Your task to perform on an android device: Open display settings Image 0: 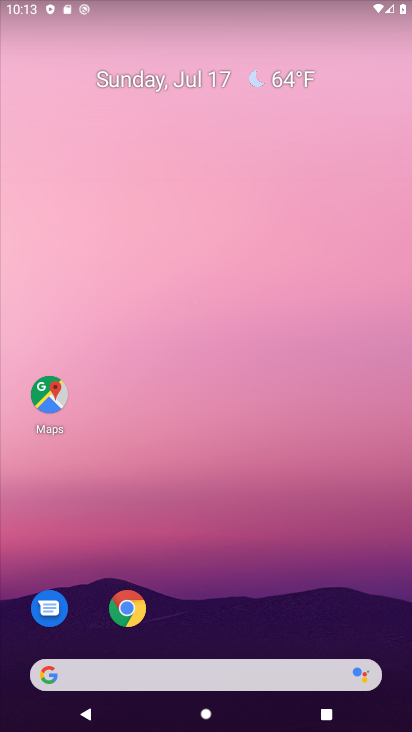
Step 0: drag from (371, 589) to (282, 99)
Your task to perform on an android device: Open display settings Image 1: 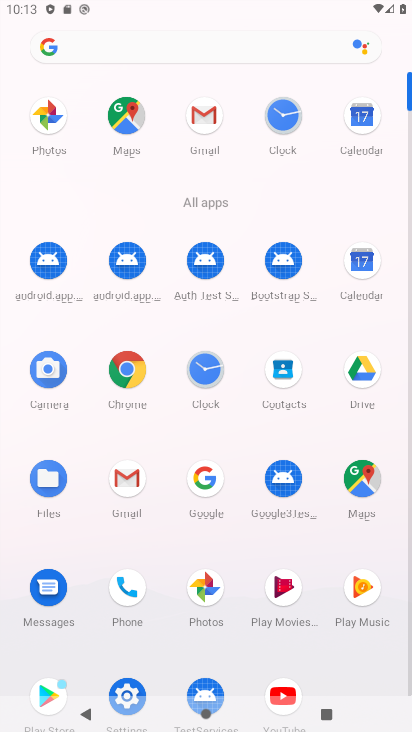
Step 1: click (130, 686)
Your task to perform on an android device: Open display settings Image 2: 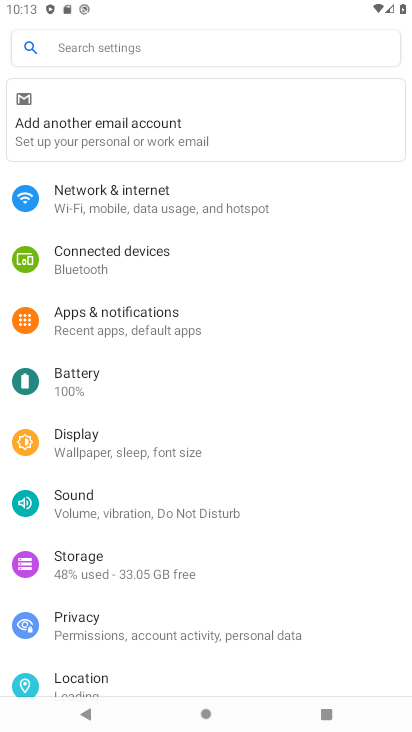
Step 2: click (79, 444)
Your task to perform on an android device: Open display settings Image 3: 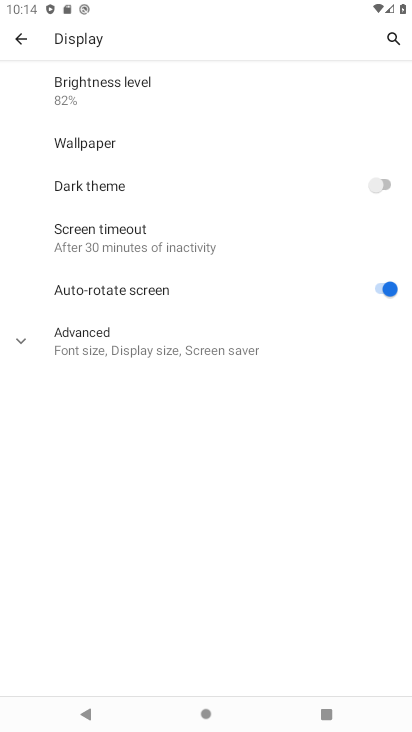
Step 3: click (21, 339)
Your task to perform on an android device: Open display settings Image 4: 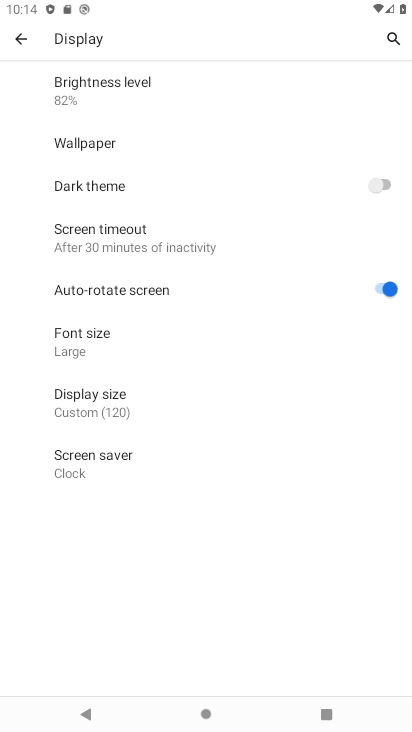
Step 4: task complete